Your task to perform on an android device: set the stopwatch Image 0: 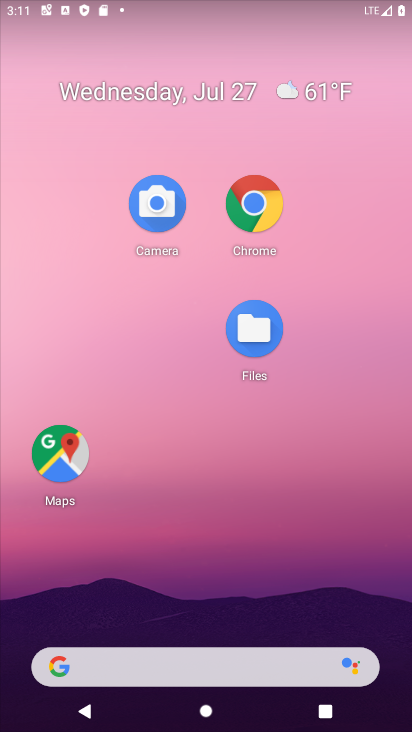
Step 0: drag from (193, 241) to (195, 92)
Your task to perform on an android device: set the stopwatch Image 1: 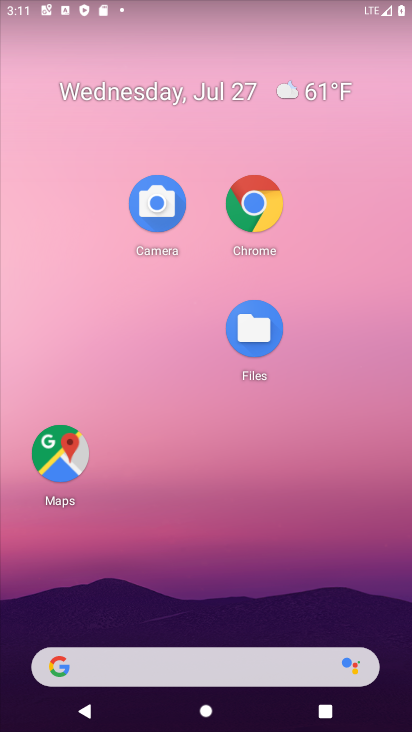
Step 1: drag from (213, 612) to (213, 270)
Your task to perform on an android device: set the stopwatch Image 2: 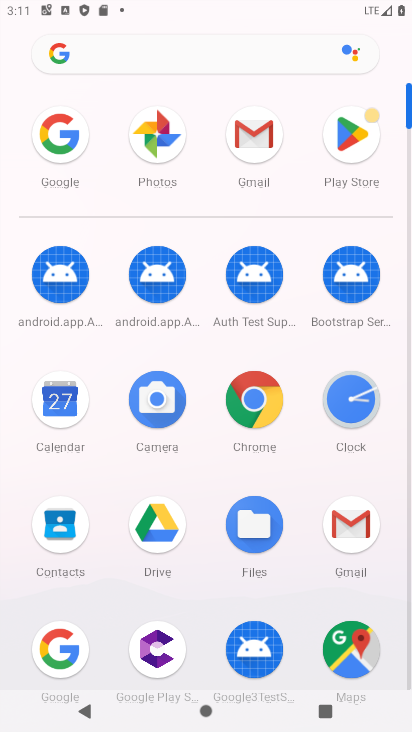
Step 2: click (340, 414)
Your task to perform on an android device: set the stopwatch Image 3: 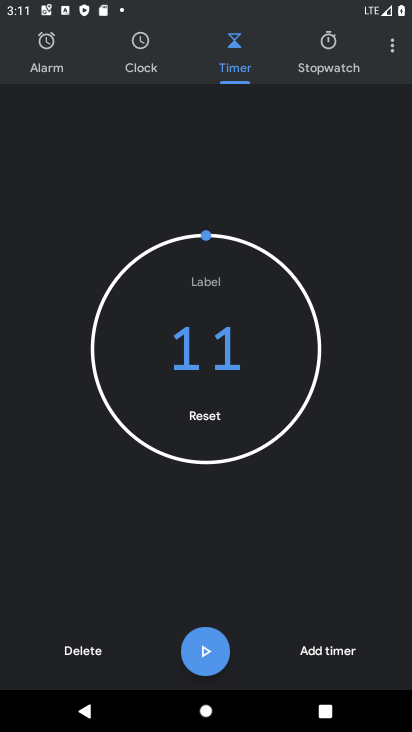
Step 3: click (345, 54)
Your task to perform on an android device: set the stopwatch Image 4: 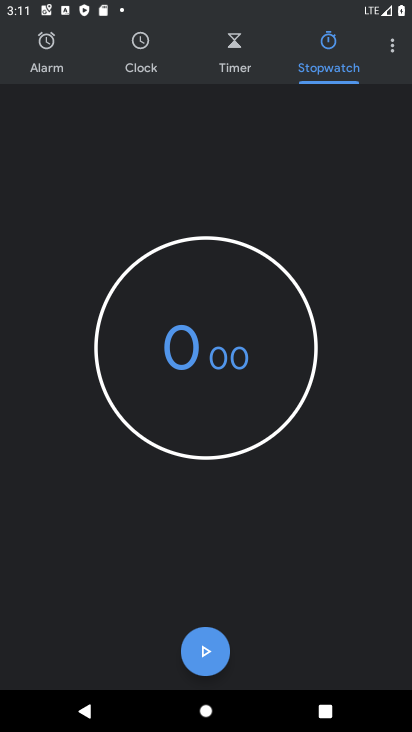
Step 4: click (213, 642)
Your task to perform on an android device: set the stopwatch Image 5: 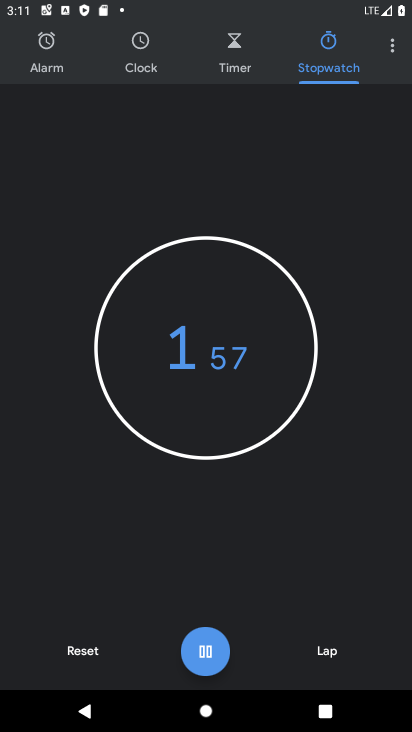
Step 5: task complete